Your task to perform on an android device: toggle location history Image 0: 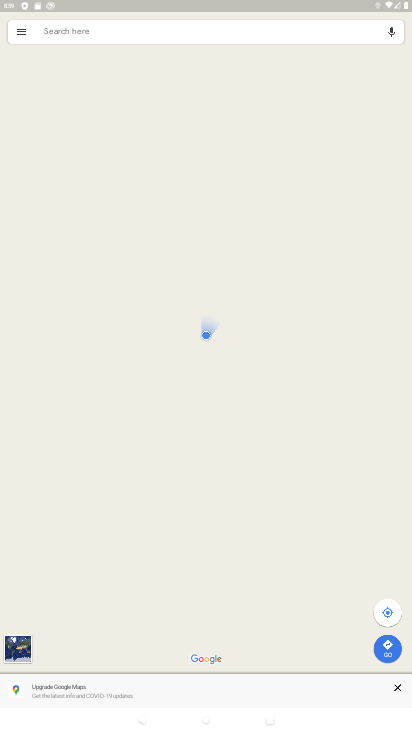
Step 0: press home button
Your task to perform on an android device: toggle location history Image 1: 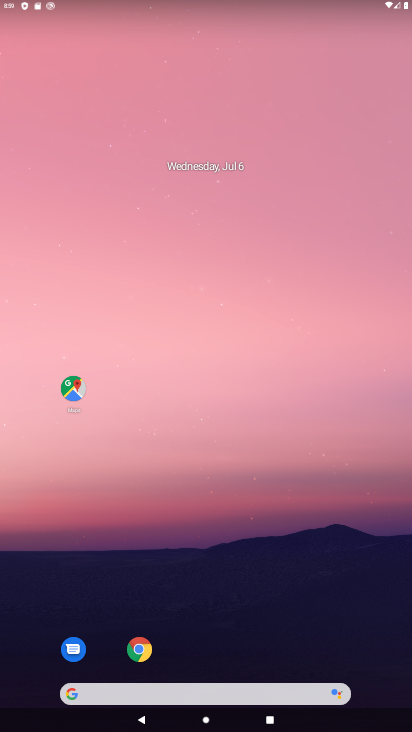
Step 1: drag from (203, 676) to (191, 10)
Your task to perform on an android device: toggle location history Image 2: 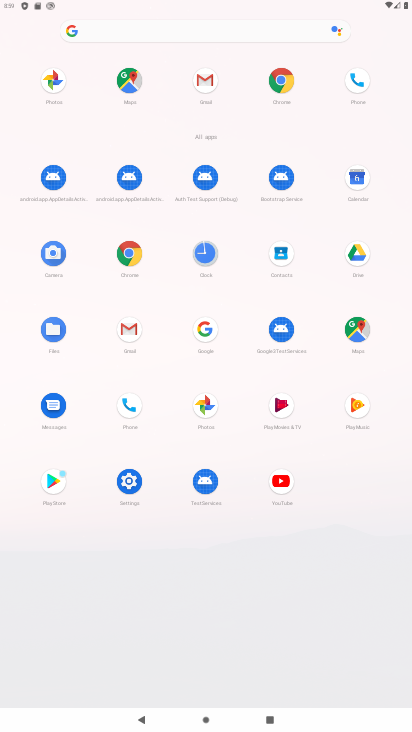
Step 2: click (126, 493)
Your task to perform on an android device: toggle location history Image 3: 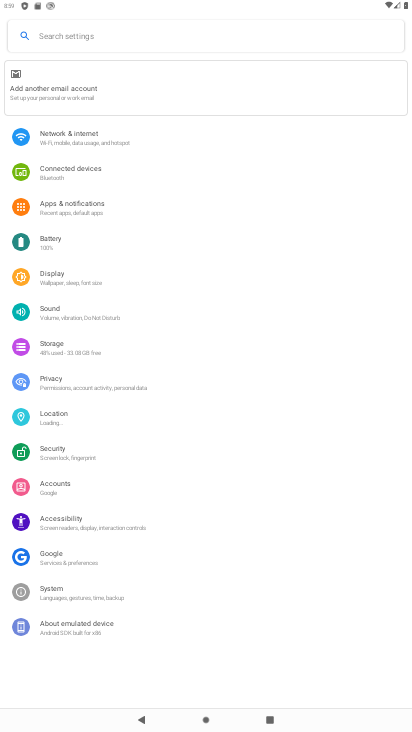
Step 3: click (62, 419)
Your task to perform on an android device: toggle location history Image 4: 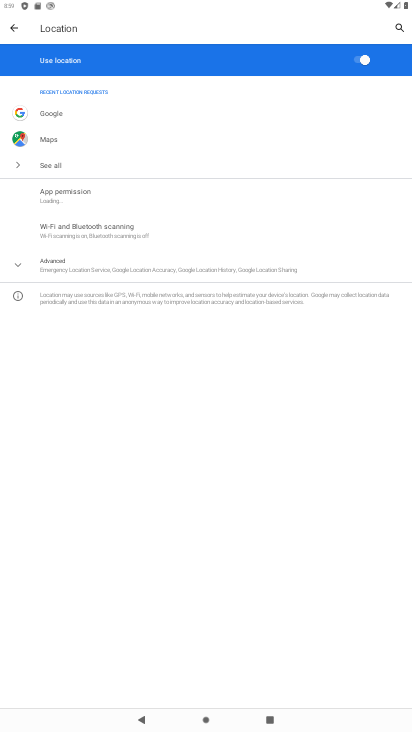
Step 4: click (42, 265)
Your task to perform on an android device: toggle location history Image 5: 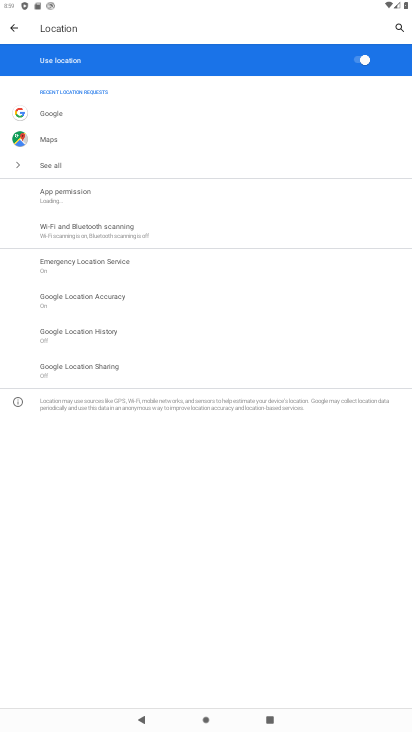
Step 5: click (54, 327)
Your task to perform on an android device: toggle location history Image 6: 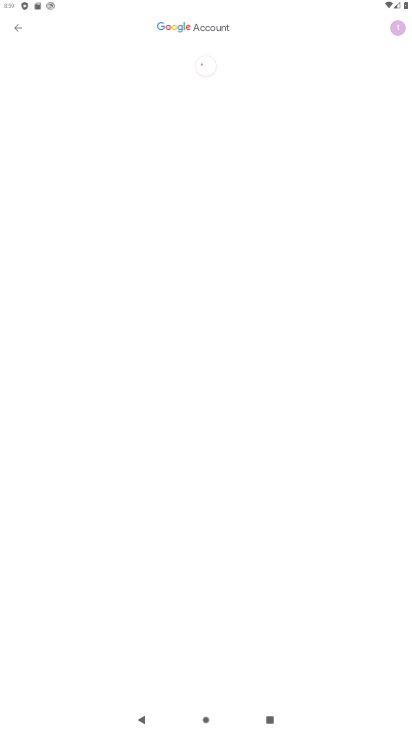
Step 6: task complete